Your task to perform on an android device: move an email to a new category in the gmail app Image 0: 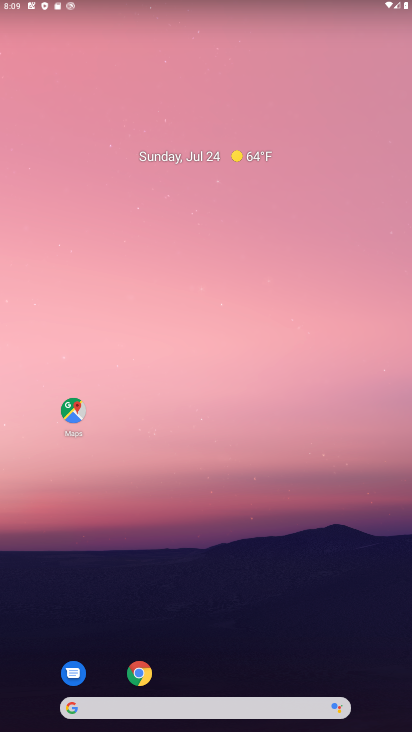
Step 0: drag from (263, 657) to (224, 260)
Your task to perform on an android device: move an email to a new category in the gmail app Image 1: 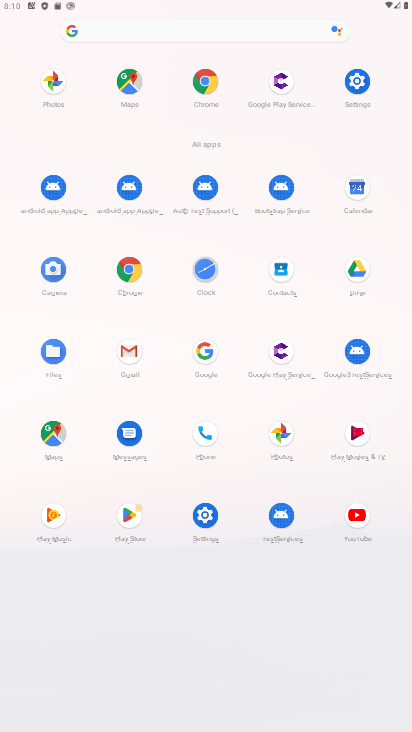
Step 1: click (132, 354)
Your task to perform on an android device: move an email to a new category in the gmail app Image 2: 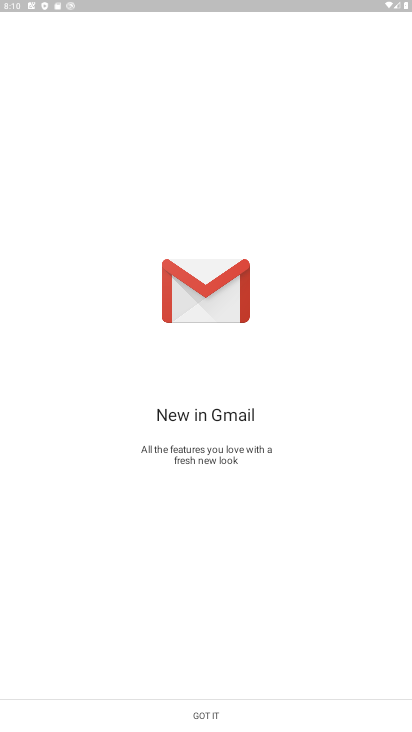
Step 2: click (262, 716)
Your task to perform on an android device: move an email to a new category in the gmail app Image 3: 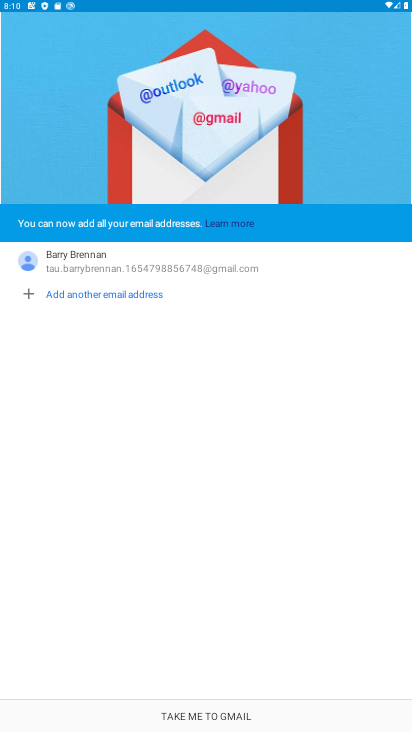
Step 3: click (262, 716)
Your task to perform on an android device: move an email to a new category in the gmail app Image 4: 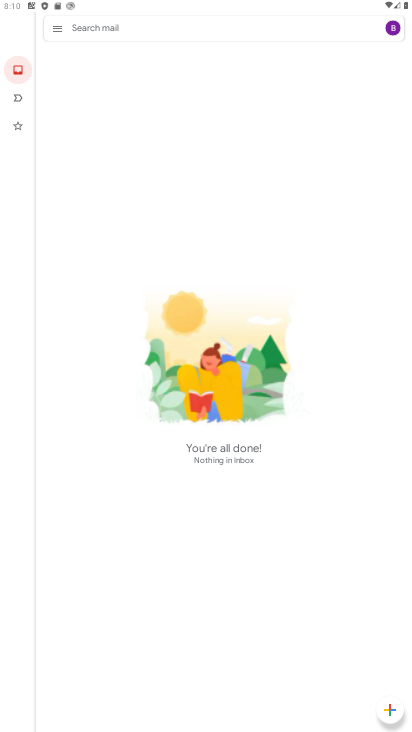
Step 4: click (54, 22)
Your task to perform on an android device: move an email to a new category in the gmail app Image 5: 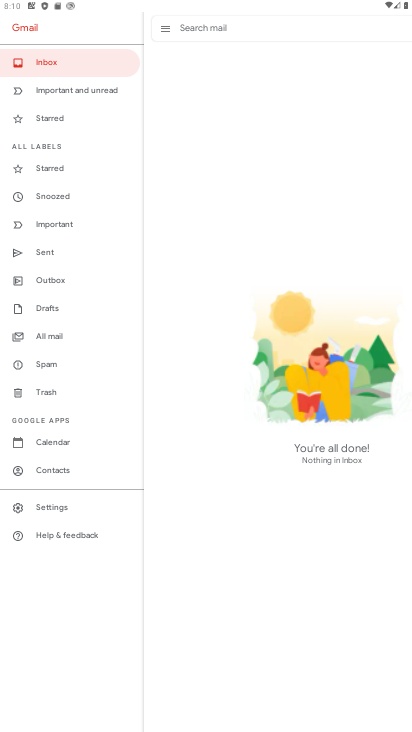
Step 5: click (50, 337)
Your task to perform on an android device: move an email to a new category in the gmail app Image 6: 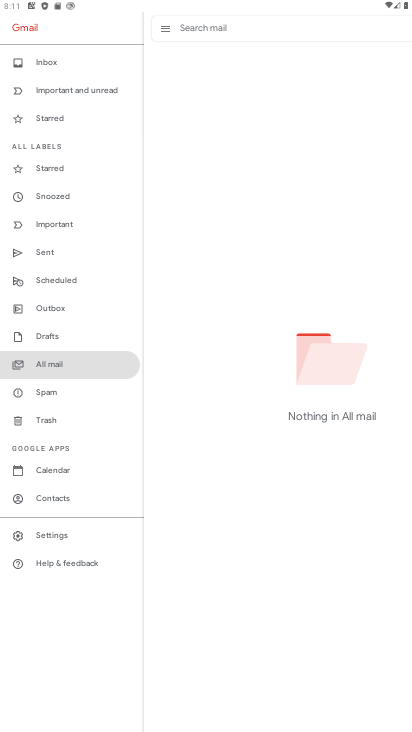
Step 6: click (303, 435)
Your task to perform on an android device: move an email to a new category in the gmail app Image 7: 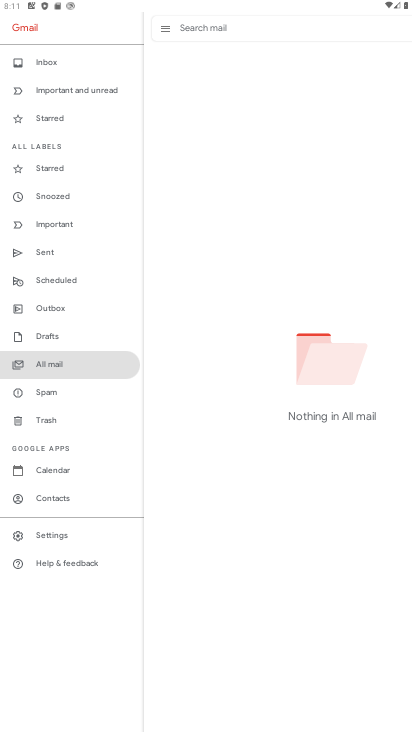
Step 7: task complete